Your task to perform on an android device: Go to accessibility settings Image 0: 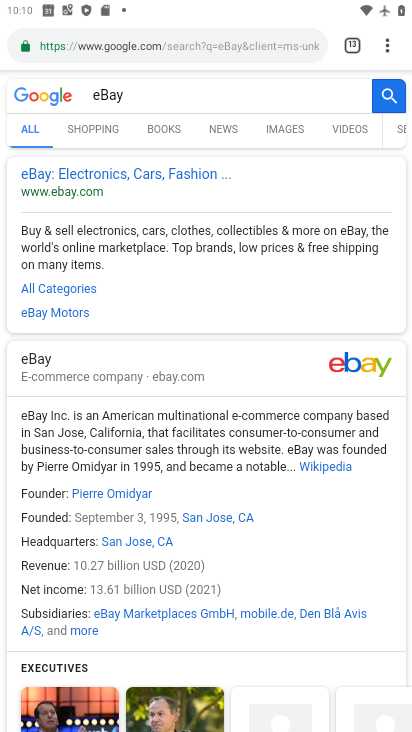
Step 0: press home button
Your task to perform on an android device: Go to accessibility settings Image 1: 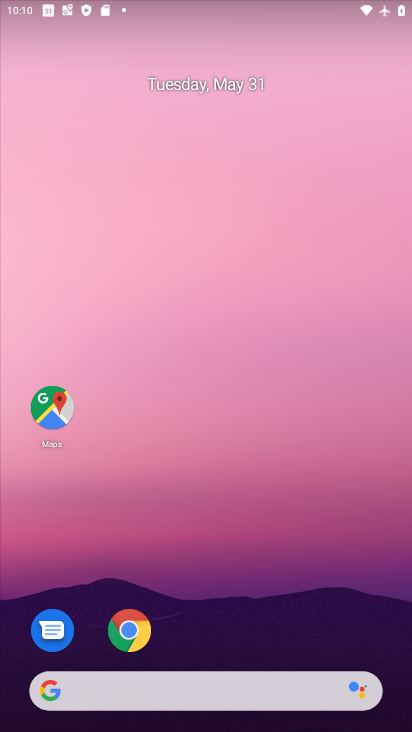
Step 1: drag from (199, 620) to (196, 212)
Your task to perform on an android device: Go to accessibility settings Image 2: 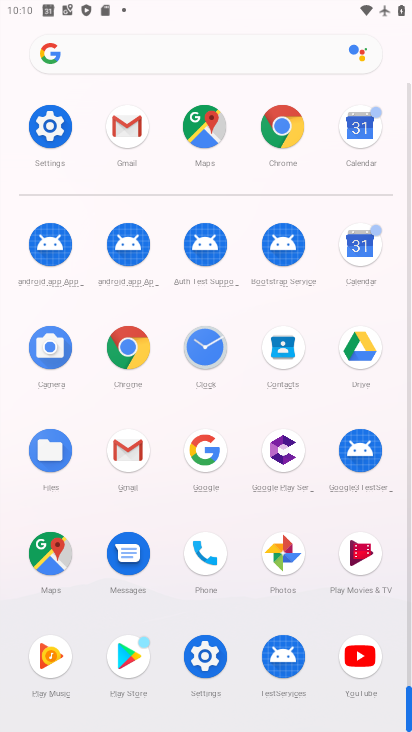
Step 2: click (52, 115)
Your task to perform on an android device: Go to accessibility settings Image 3: 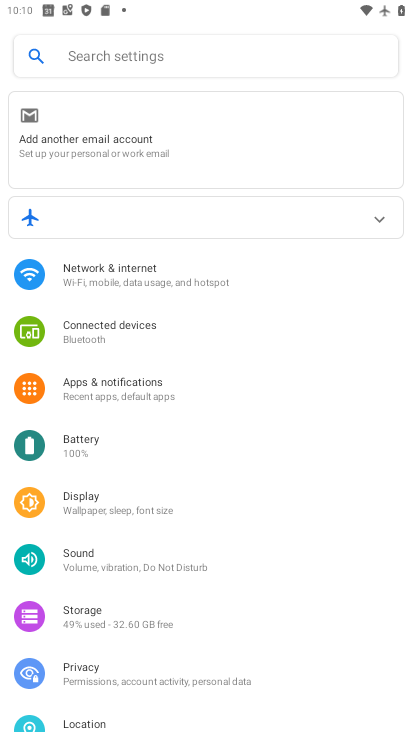
Step 3: drag from (148, 643) to (187, 270)
Your task to perform on an android device: Go to accessibility settings Image 4: 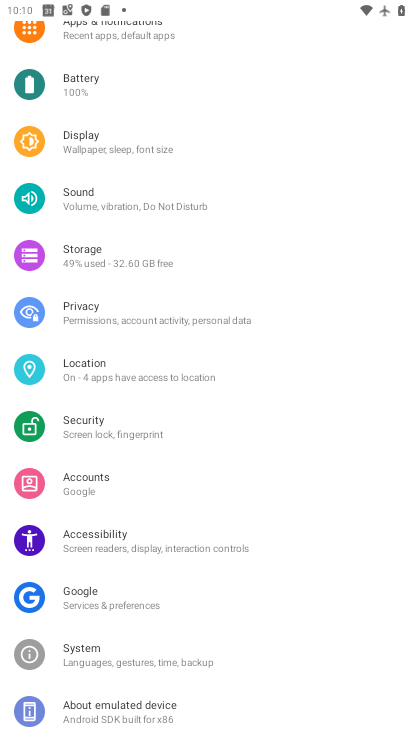
Step 4: click (128, 530)
Your task to perform on an android device: Go to accessibility settings Image 5: 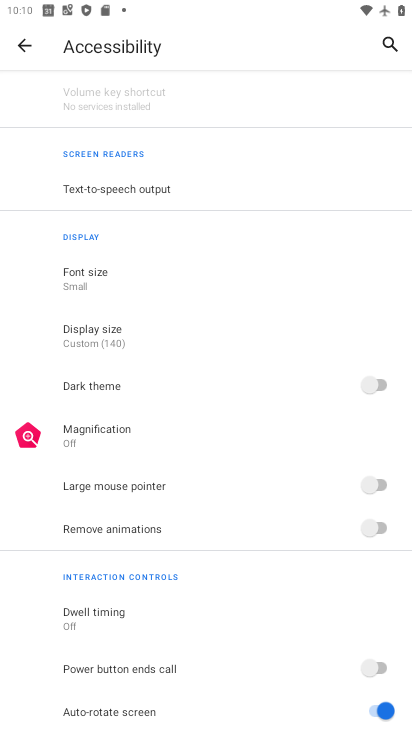
Step 5: task complete